Your task to perform on an android device: toggle show notifications on the lock screen Image 0: 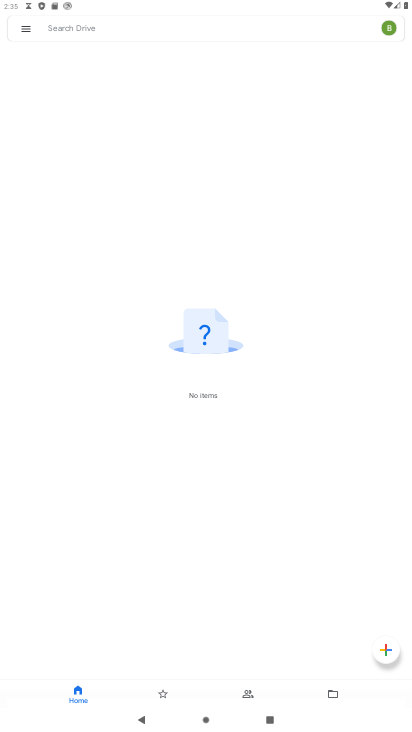
Step 0: press home button
Your task to perform on an android device: toggle show notifications on the lock screen Image 1: 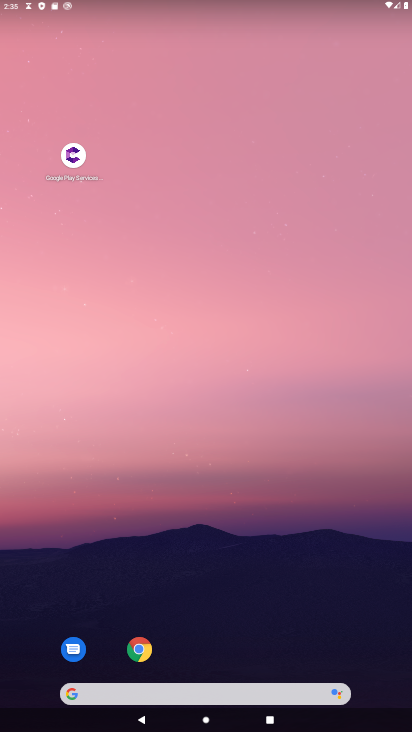
Step 1: drag from (192, 594) to (201, 83)
Your task to perform on an android device: toggle show notifications on the lock screen Image 2: 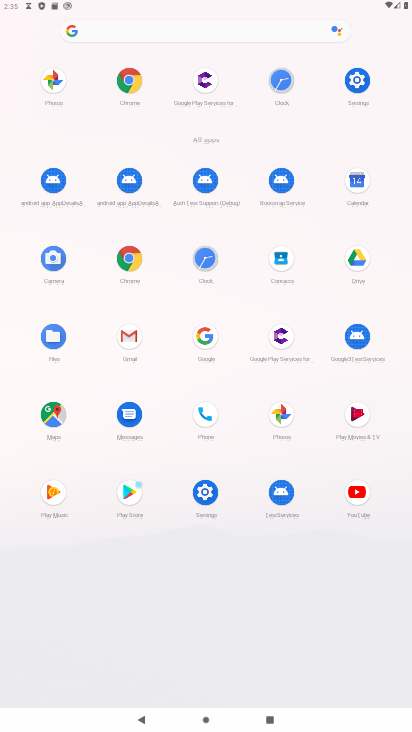
Step 2: click (208, 504)
Your task to perform on an android device: toggle show notifications on the lock screen Image 3: 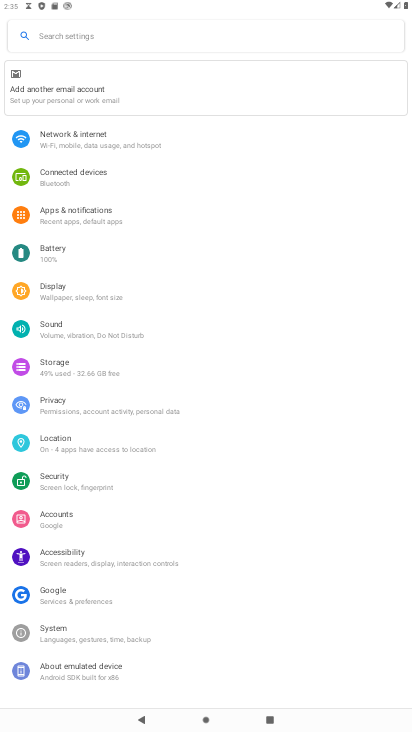
Step 3: click (96, 216)
Your task to perform on an android device: toggle show notifications on the lock screen Image 4: 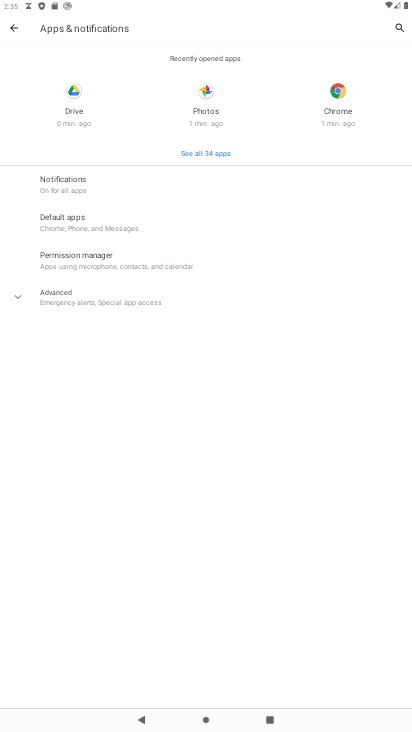
Step 4: click (70, 184)
Your task to perform on an android device: toggle show notifications on the lock screen Image 5: 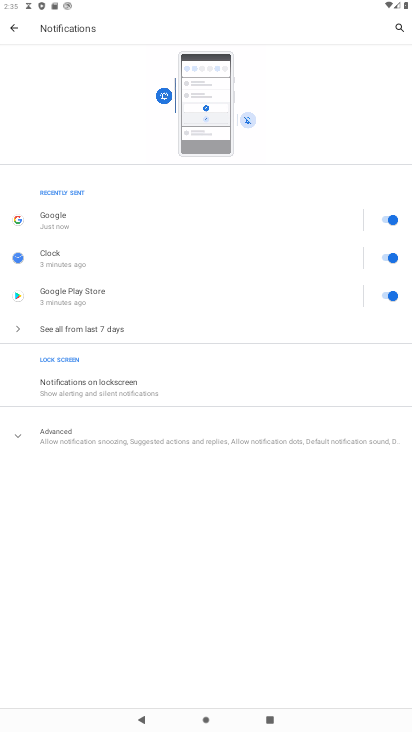
Step 5: click (144, 382)
Your task to perform on an android device: toggle show notifications on the lock screen Image 6: 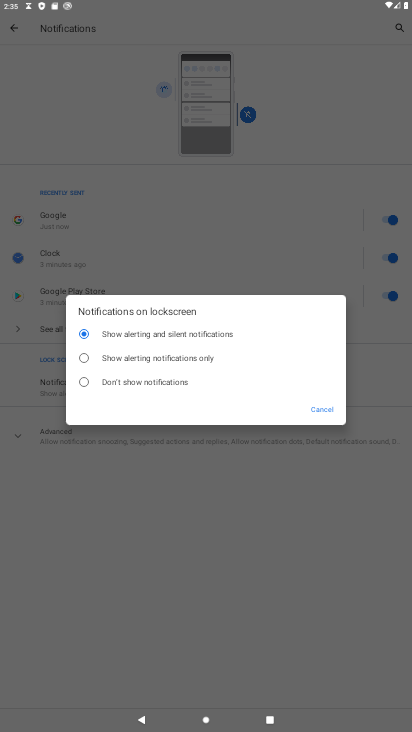
Step 6: click (152, 386)
Your task to perform on an android device: toggle show notifications on the lock screen Image 7: 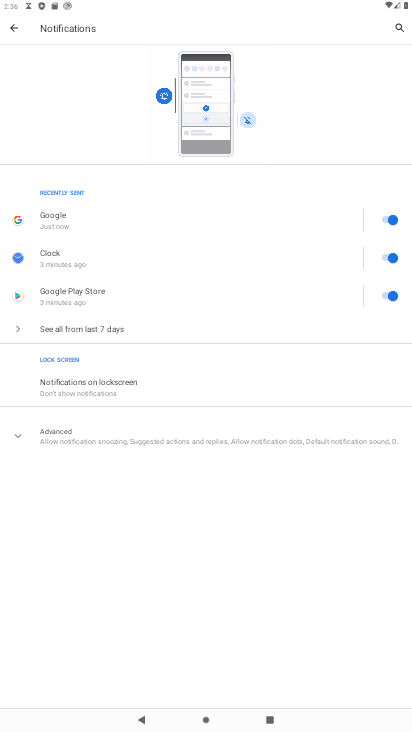
Step 7: task complete